Your task to perform on an android device: Go to internet settings Image 0: 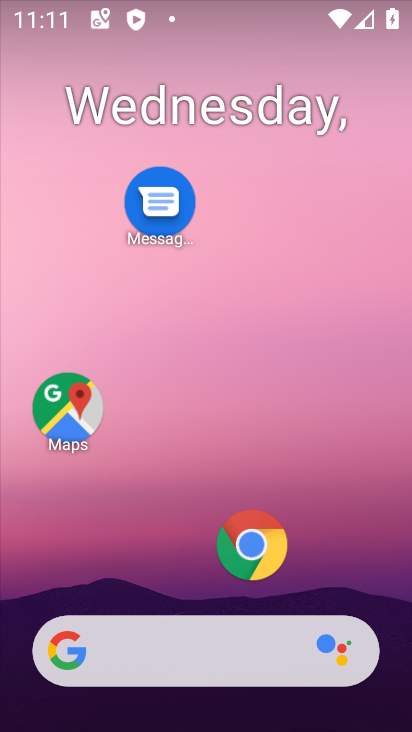
Step 0: drag from (202, 333) to (214, 216)
Your task to perform on an android device: Go to internet settings Image 1: 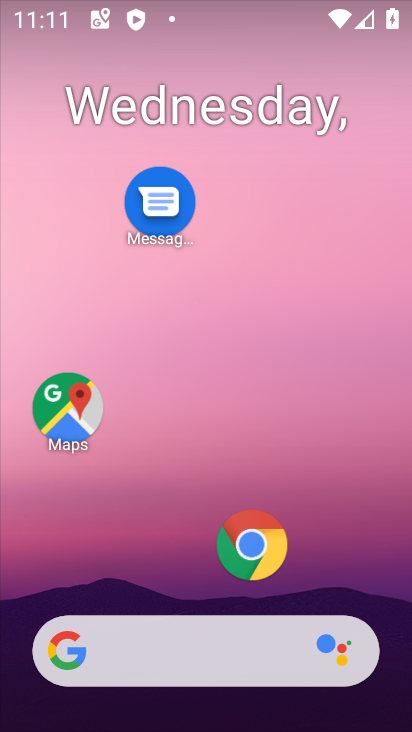
Step 1: drag from (187, 586) to (201, 190)
Your task to perform on an android device: Go to internet settings Image 2: 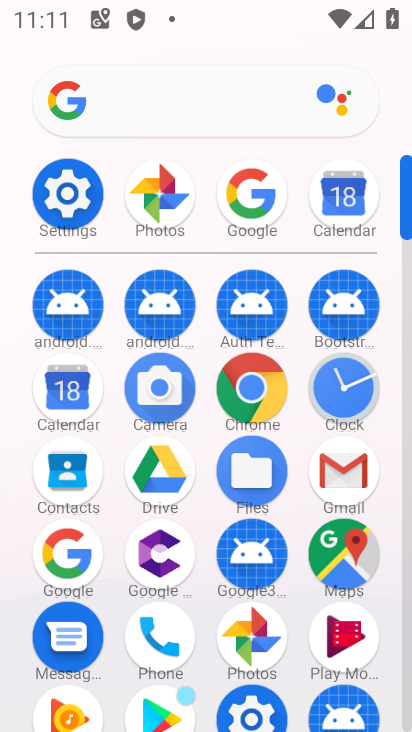
Step 2: click (79, 188)
Your task to perform on an android device: Go to internet settings Image 3: 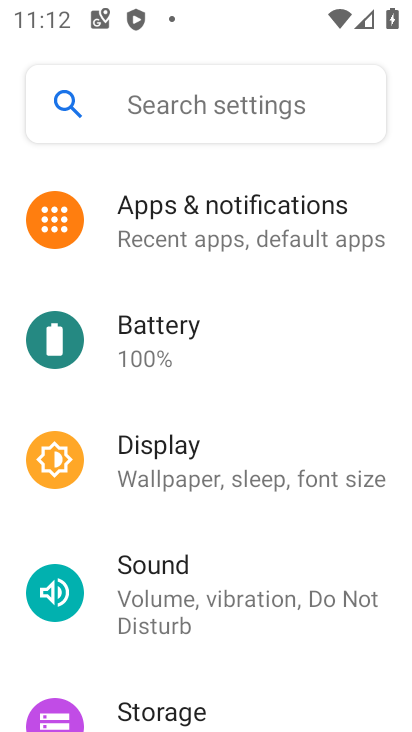
Step 3: drag from (225, 301) to (227, 568)
Your task to perform on an android device: Go to internet settings Image 4: 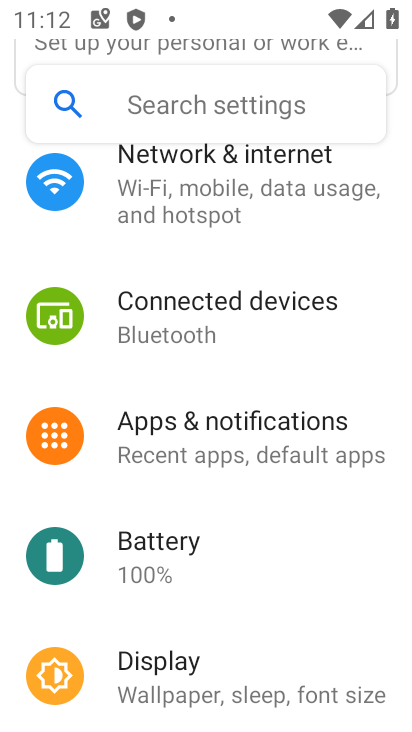
Step 4: drag from (186, 240) to (209, 505)
Your task to perform on an android device: Go to internet settings Image 5: 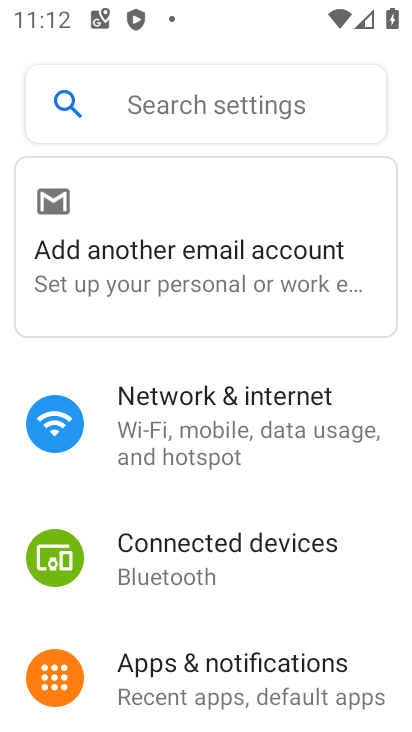
Step 5: click (195, 422)
Your task to perform on an android device: Go to internet settings Image 6: 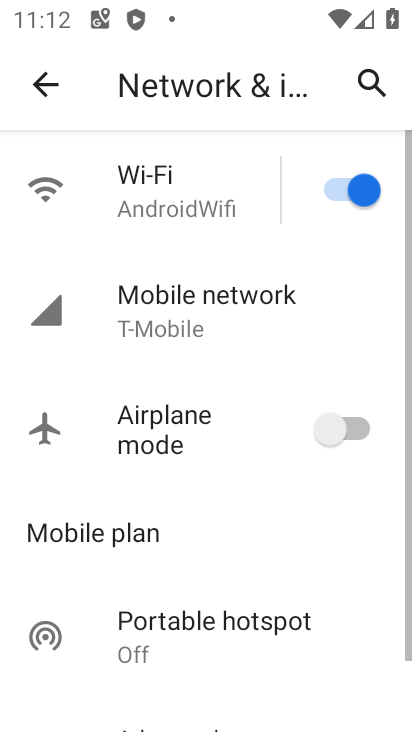
Step 6: click (208, 324)
Your task to perform on an android device: Go to internet settings Image 7: 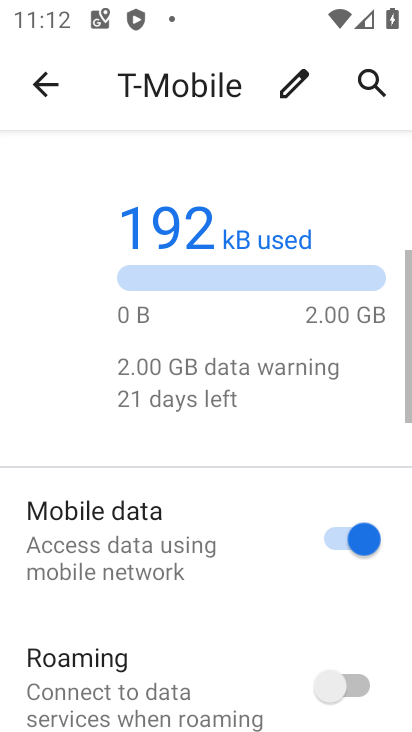
Step 7: task complete